Your task to perform on an android device: Go to battery settings Image 0: 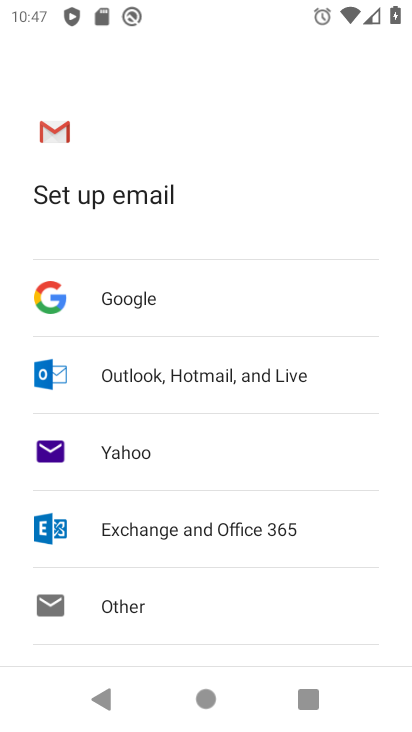
Step 0: press back button
Your task to perform on an android device: Go to battery settings Image 1: 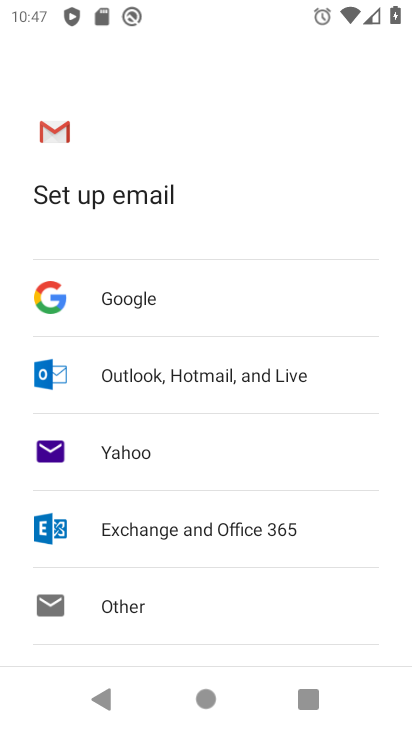
Step 1: press back button
Your task to perform on an android device: Go to battery settings Image 2: 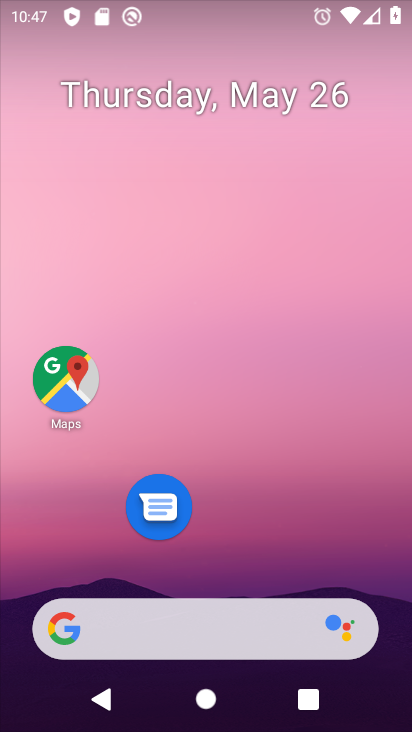
Step 2: drag from (214, 630) to (153, 129)
Your task to perform on an android device: Go to battery settings Image 3: 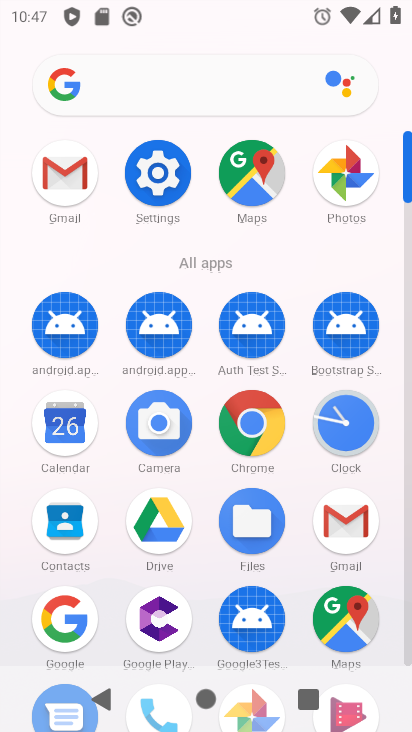
Step 3: click (150, 173)
Your task to perform on an android device: Go to battery settings Image 4: 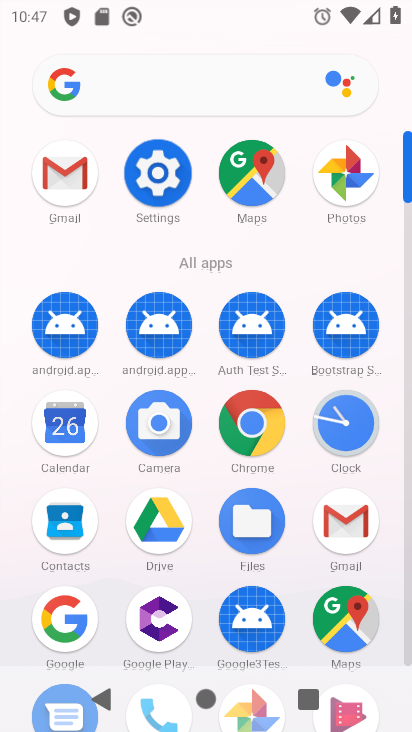
Step 4: click (150, 173)
Your task to perform on an android device: Go to battery settings Image 5: 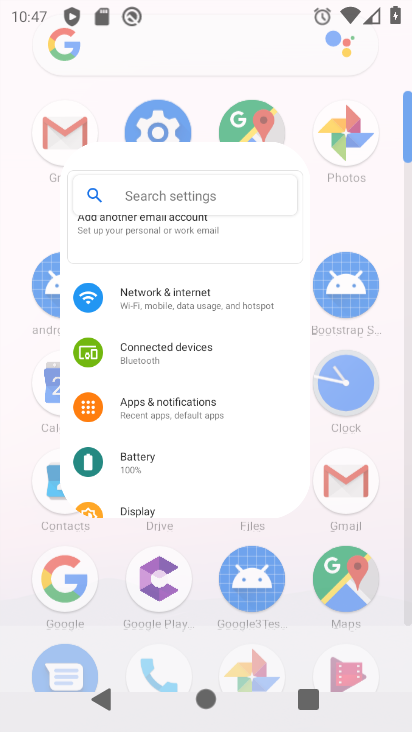
Step 5: click (154, 173)
Your task to perform on an android device: Go to battery settings Image 6: 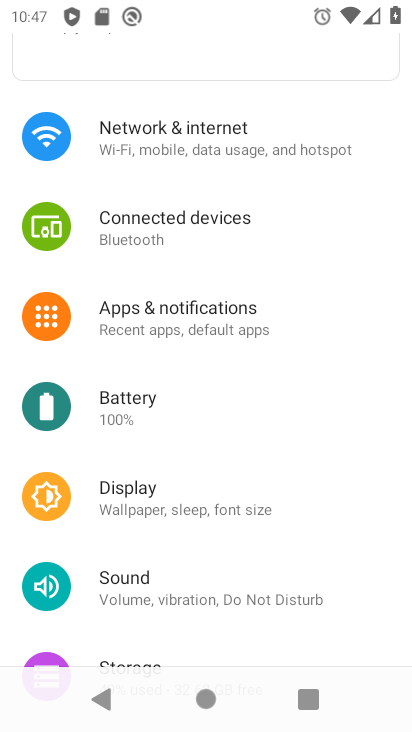
Step 6: click (110, 394)
Your task to perform on an android device: Go to battery settings Image 7: 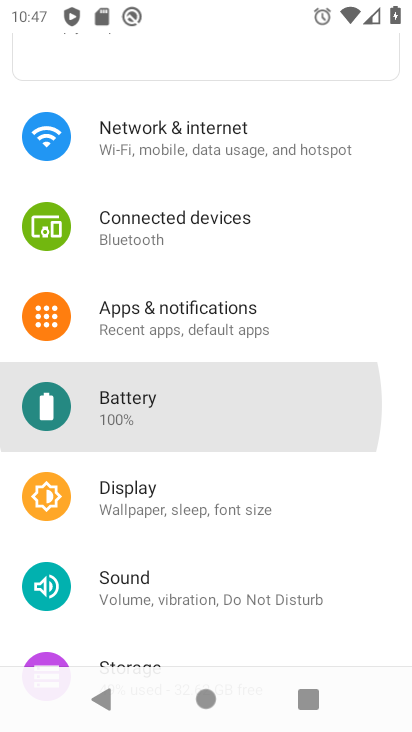
Step 7: click (111, 395)
Your task to perform on an android device: Go to battery settings Image 8: 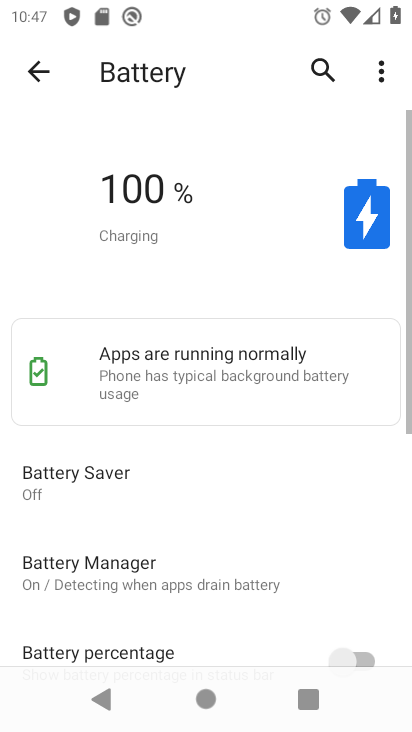
Step 8: click (104, 395)
Your task to perform on an android device: Go to battery settings Image 9: 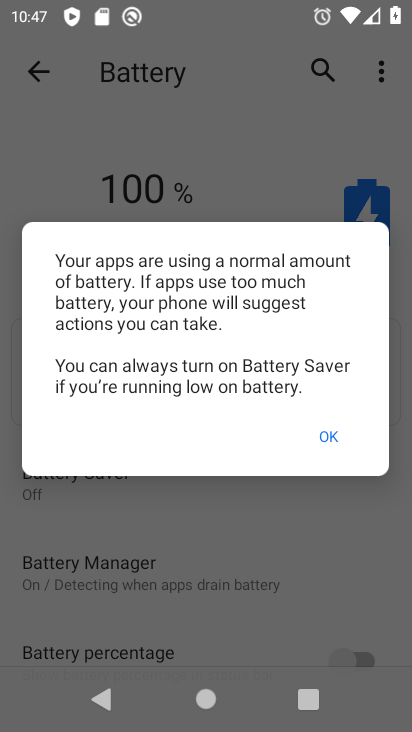
Step 9: click (326, 433)
Your task to perform on an android device: Go to battery settings Image 10: 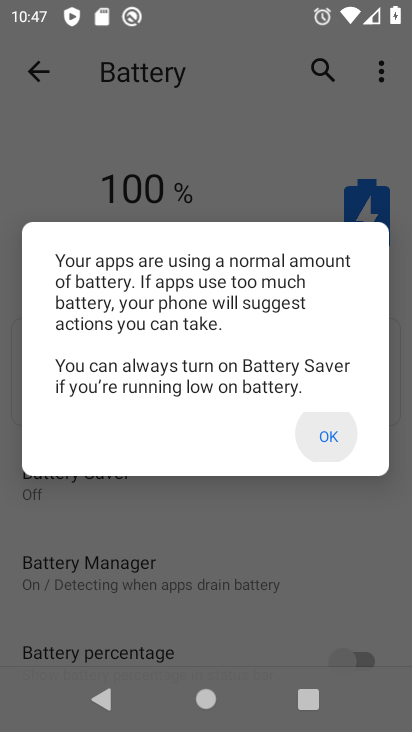
Step 10: click (326, 433)
Your task to perform on an android device: Go to battery settings Image 11: 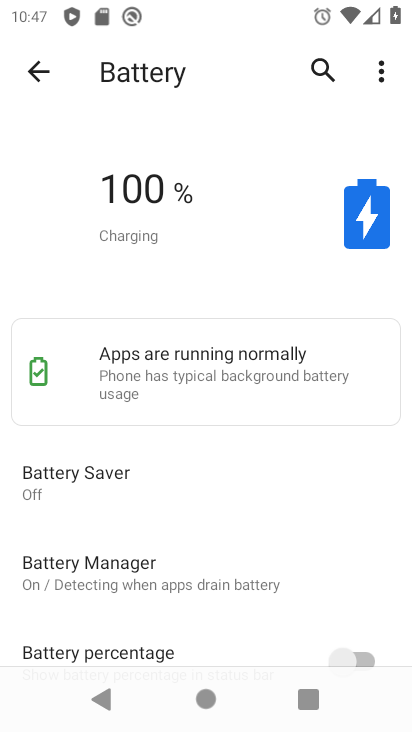
Step 11: click (327, 434)
Your task to perform on an android device: Go to battery settings Image 12: 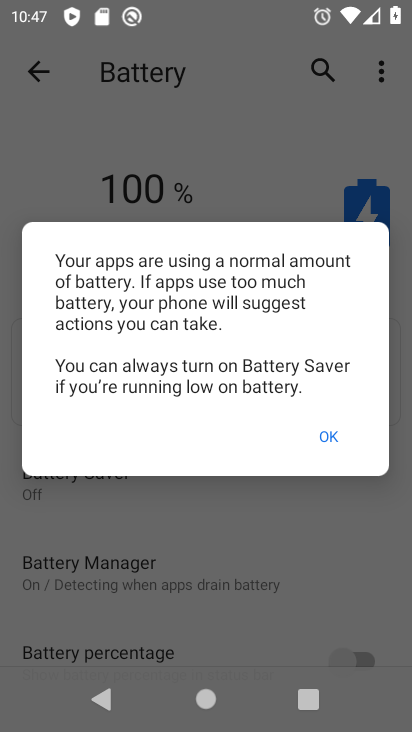
Step 12: click (324, 430)
Your task to perform on an android device: Go to battery settings Image 13: 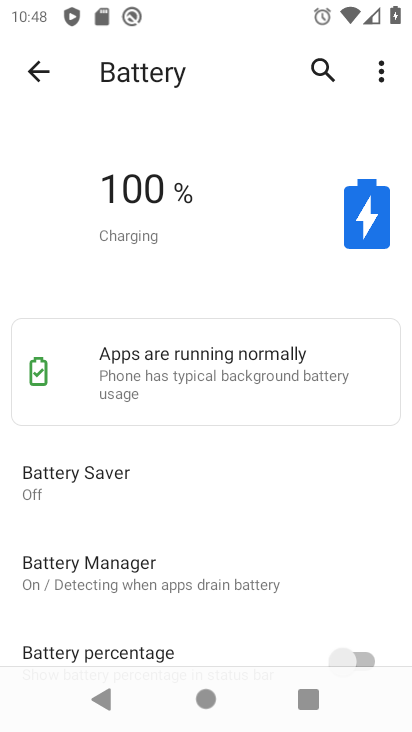
Step 13: drag from (178, 516) to (217, 81)
Your task to perform on an android device: Go to battery settings Image 14: 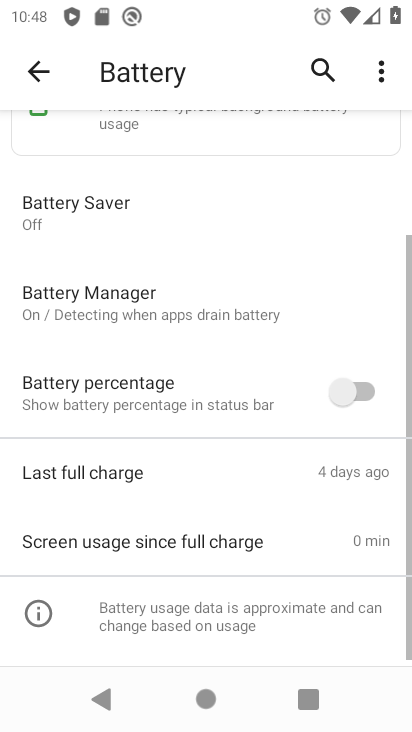
Step 14: drag from (137, 163) to (99, 33)
Your task to perform on an android device: Go to battery settings Image 15: 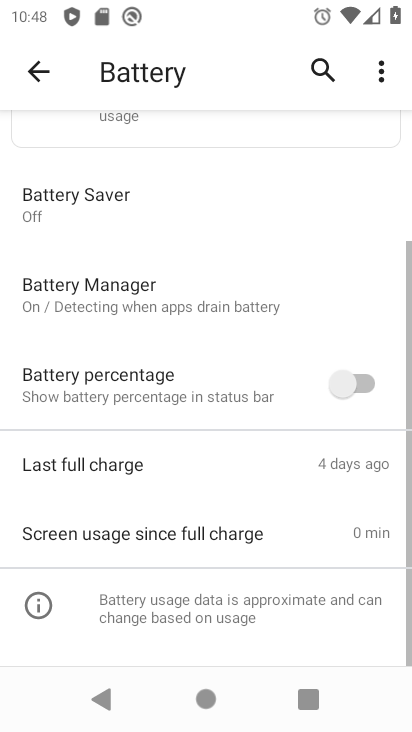
Step 15: drag from (91, 380) to (99, 14)
Your task to perform on an android device: Go to battery settings Image 16: 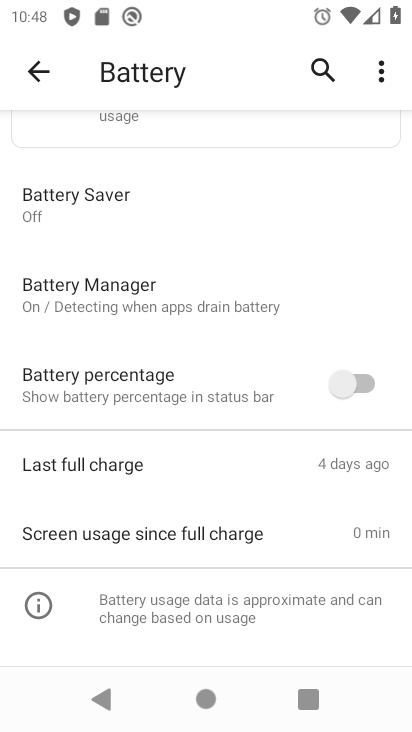
Step 16: click (169, 435)
Your task to perform on an android device: Go to battery settings Image 17: 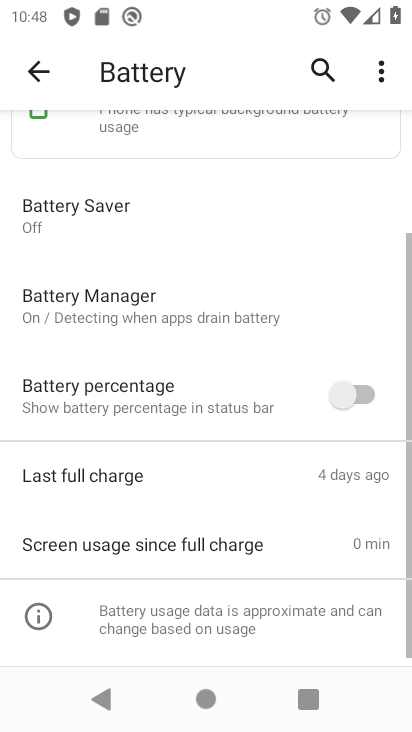
Step 17: task complete